Your task to perform on an android device: check android version Image 0: 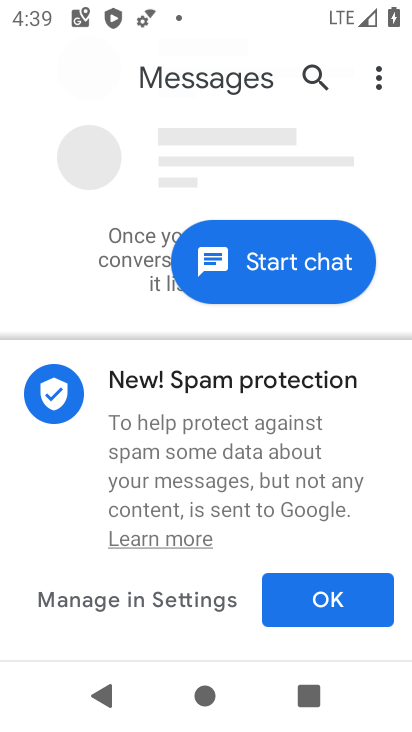
Step 0: drag from (354, 487) to (286, 59)
Your task to perform on an android device: check android version Image 1: 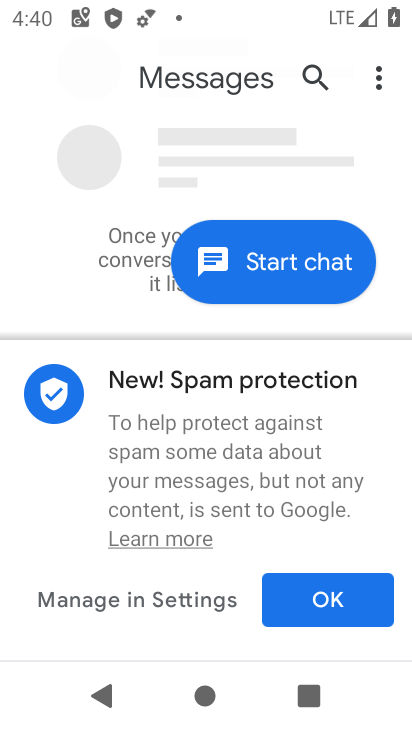
Step 1: press home button
Your task to perform on an android device: check android version Image 2: 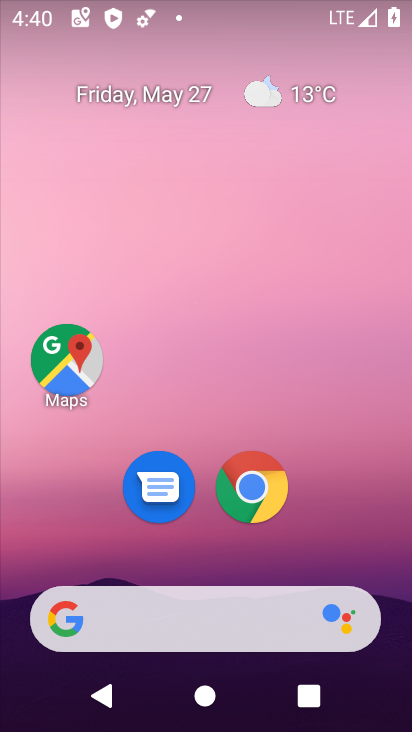
Step 2: drag from (324, 508) to (323, 80)
Your task to perform on an android device: check android version Image 3: 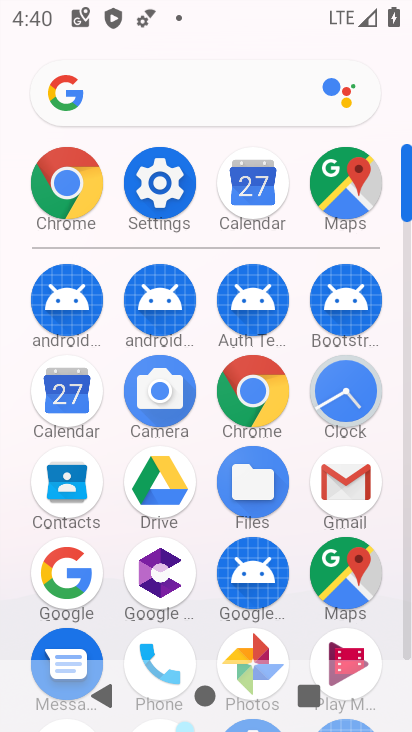
Step 3: click (154, 185)
Your task to perform on an android device: check android version Image 4: 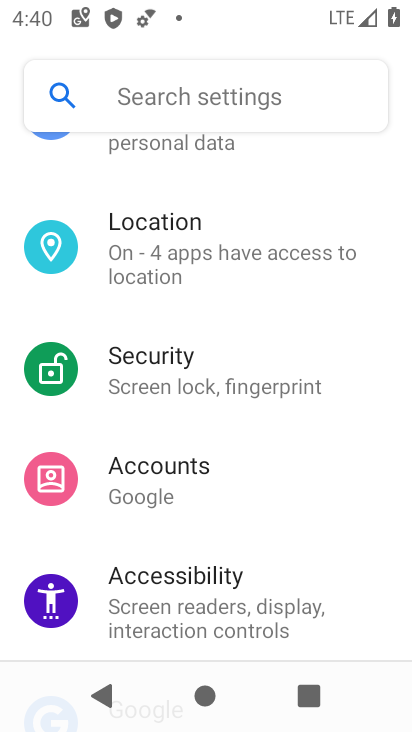
Step 4: drag from (239, 595) to (216, 99)
Your task to perform on an android device: check android version Image 5: 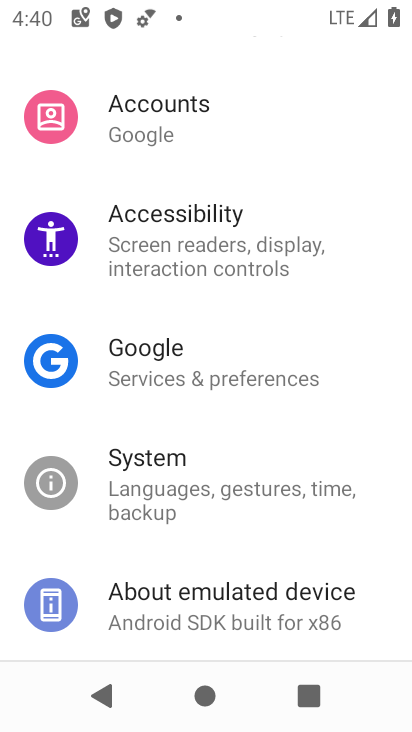
Step 5: drag from (180, 557) to (251, 146)
Your task to perform on an android device: check android version Image 6: 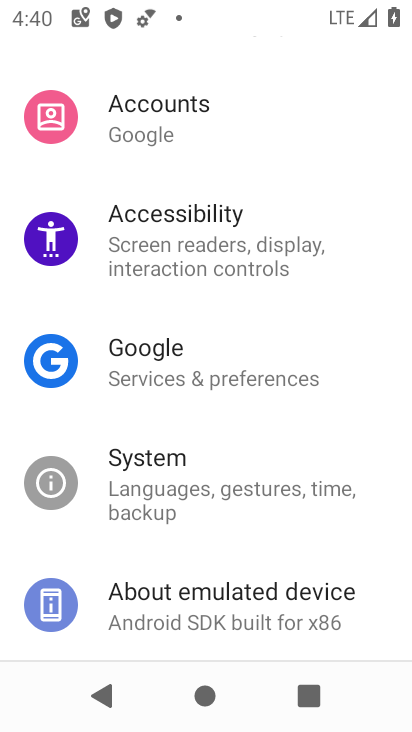
Step 6: click (231, 626)
Your task to perform on an android device: check android version Image 7: 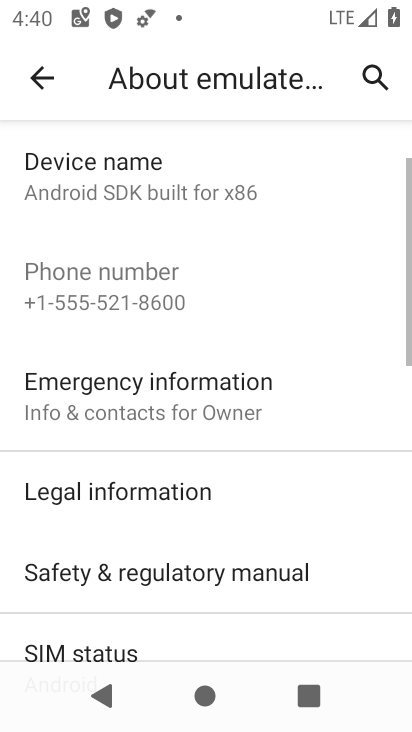
Step 7: drag from (242, 614) to (224, 217)
Your task to perform on an android device: check android version Image 8: 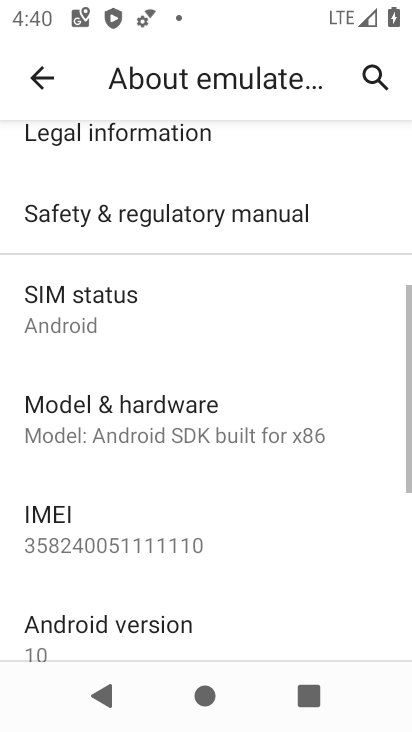
Step 8: drag from (113, 505) to (189, 227)
Your task to perform on an android device: check android version Image 9: 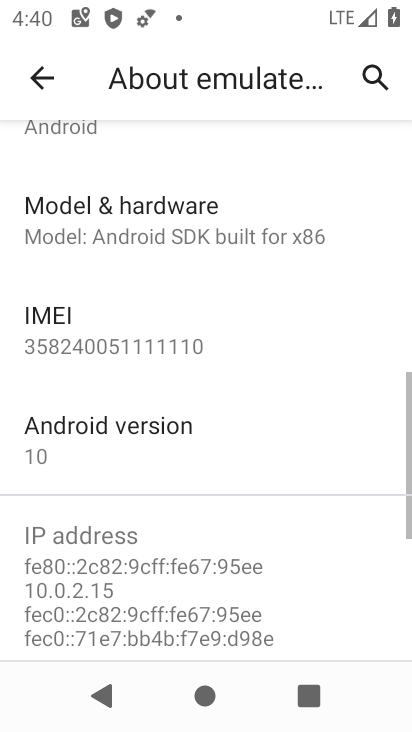
Step 9: click (116, 435)
Your task to perform on an android device: check android version Image 10: 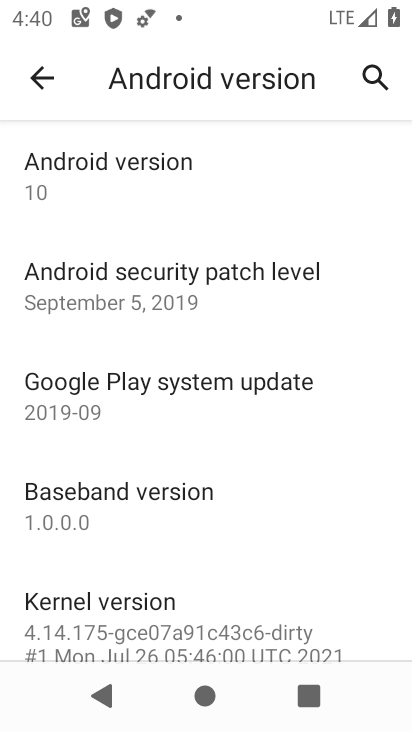
Step 10: task complete